Your task to perform on an android device: turn on airplane mode Image 0: 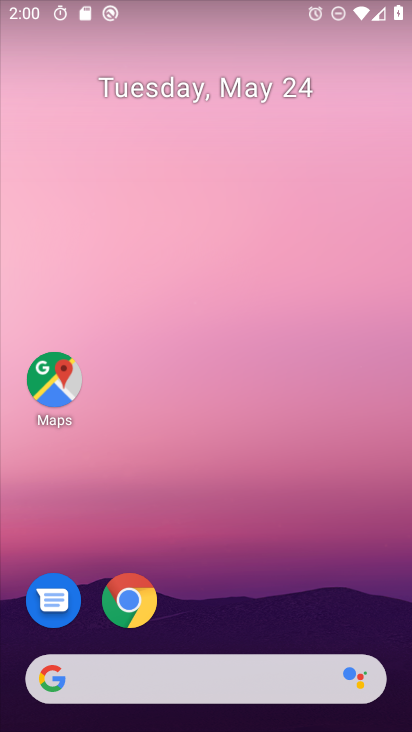
Step 0: drag from (294, 588) to (316, 46)
Your task to perform on an android device: turn on airplane mode Image 1: 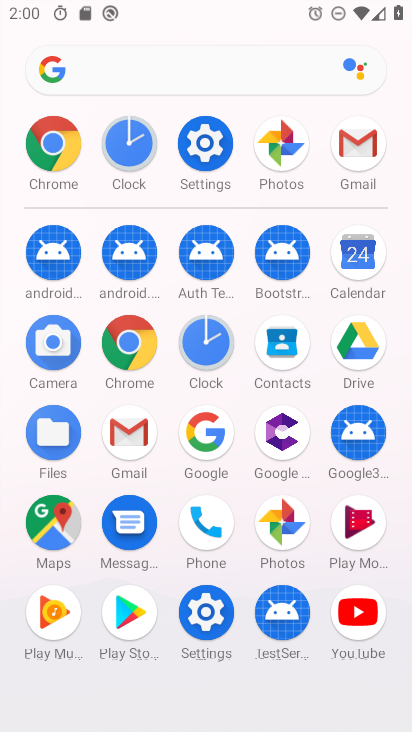
Step 1: click (213, 142)
Your task to perform on an android device: turn on airplane mode Image 2: 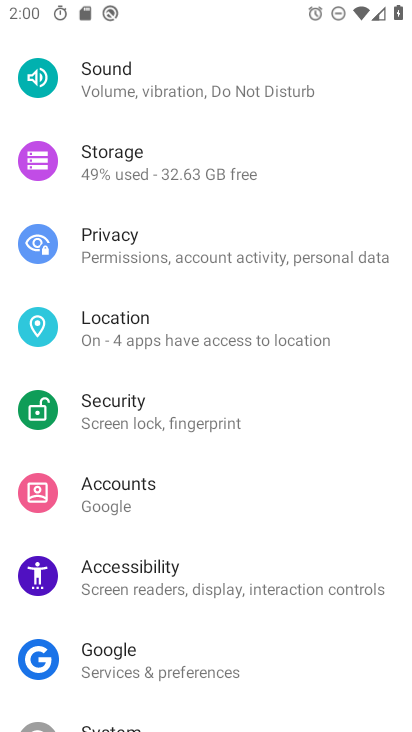
Step 2: drag from (293, 175) to (291, 612)
Your task to perform on an android device: turn on airplane mode Image 3: 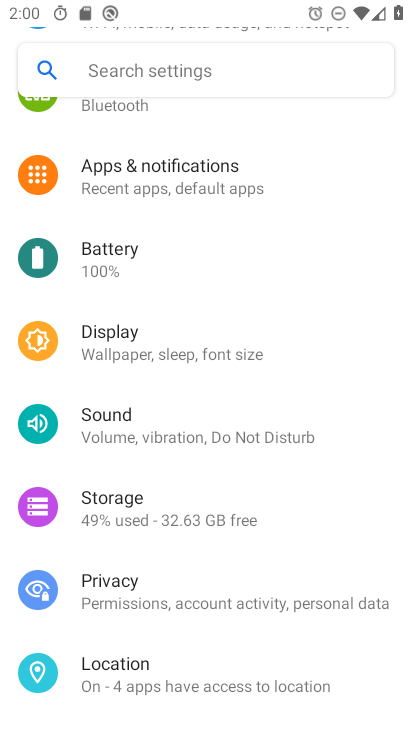
Step 3: drag from (287, 224) to (249, 597)
Your task to perform on an android device: turn on airplane mode Image 4: 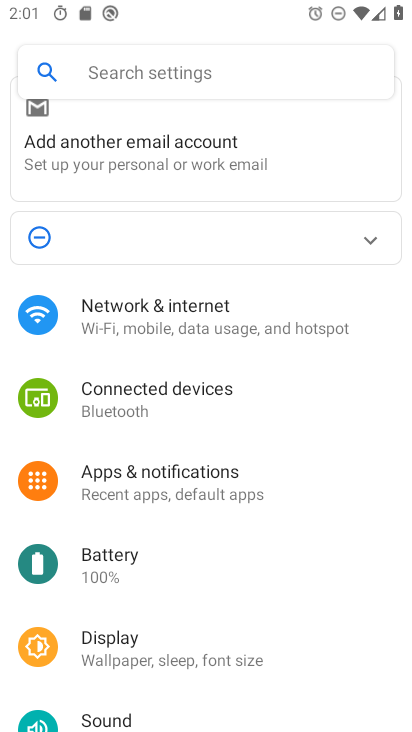
Step 4: click (201, 337)
Your task to perform on an android device: turn on airplane mode Image 5: 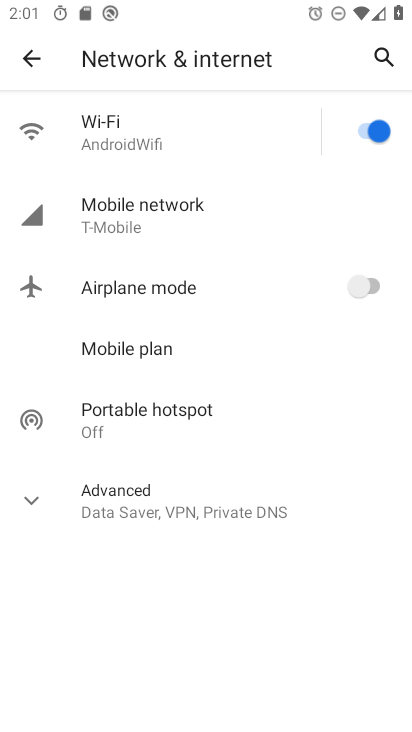
Step 5: click (375, 287)
Your task to perform on an android device: turn on airplane mode Image 6: 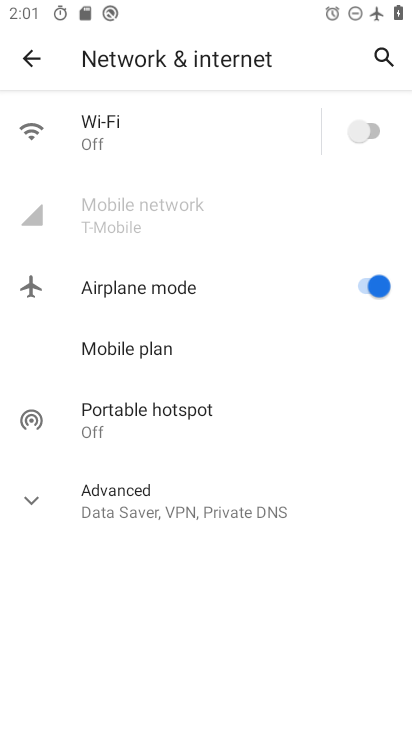
Step 6: task complete